Your task to perform on an android device: Is it going to rain tomorrow? Image 0: 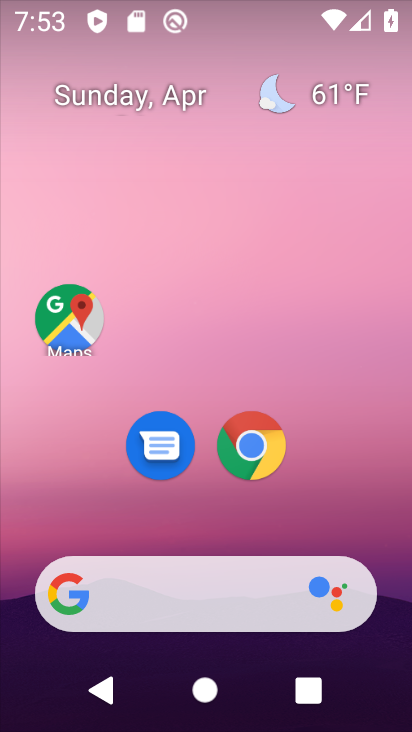
Step 0: drag from (203, 520) to (213, 41)
Your task to perform on an android device: Is it going to rain tomorrow? Image 1: 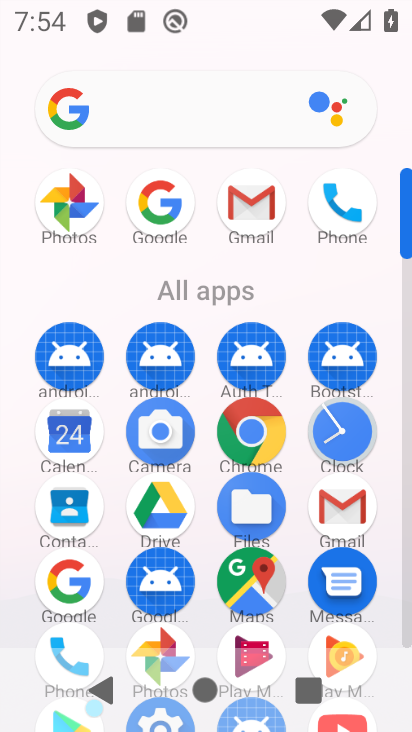
Step 1: click (168, 198)
Your task to perform on an android device: Is it going to rain tomorrow? Image 2: 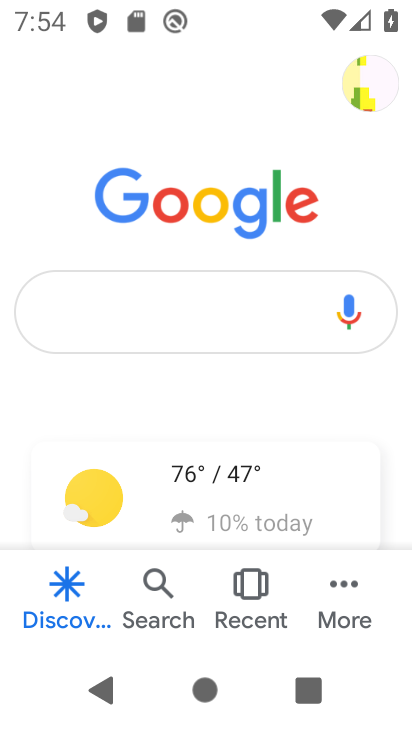
Step 2: click (227, 484)
Your task to perform on an android device: Is it going to rain tomorrow? Image 3: 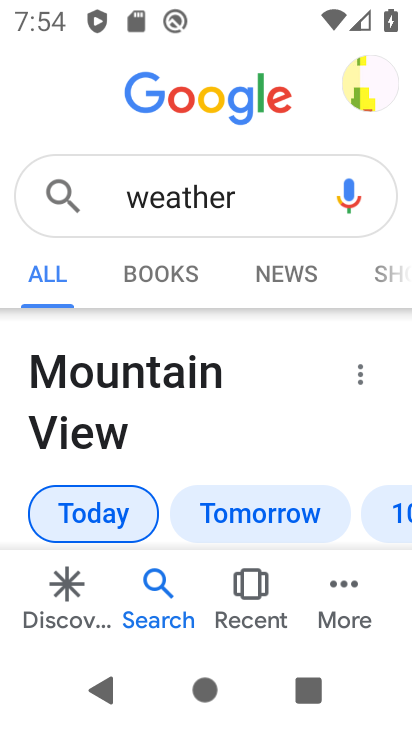
Step 3: drag from (207, 468) to (248, 241)
Your task to perform on an android device: Is it going to rain tomorrow? Image 4: 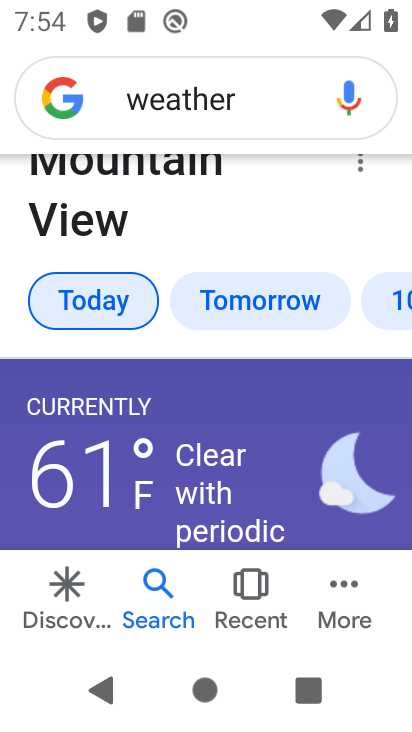
Step 4: click (251, 307)
Your task to perform on an android device: Is it going to rain tomorrow? Image 5: 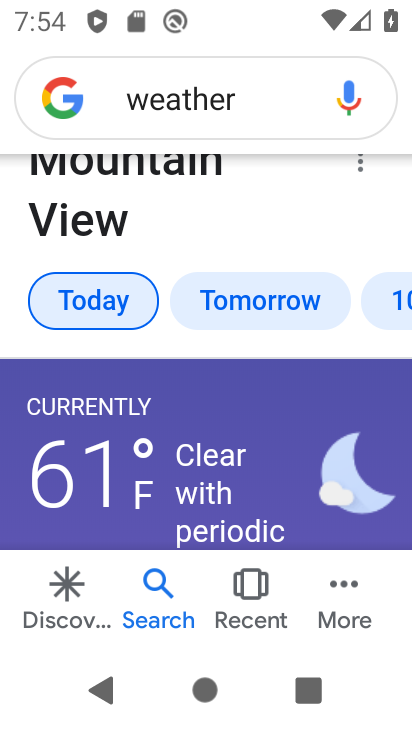
Step 5: click (246, 294)
Your task to perform on an android device: Is it going to rain tomorrow? Image 6: 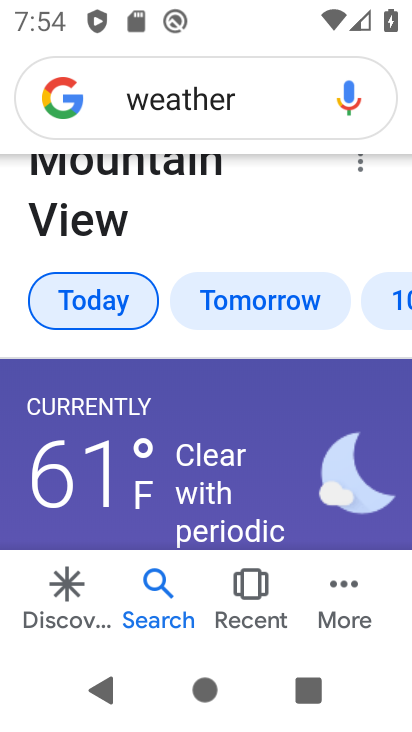
Step 6: click (246, 294)
Your task to perform on an android device: Is it going to rain tomorrow? Image 7: 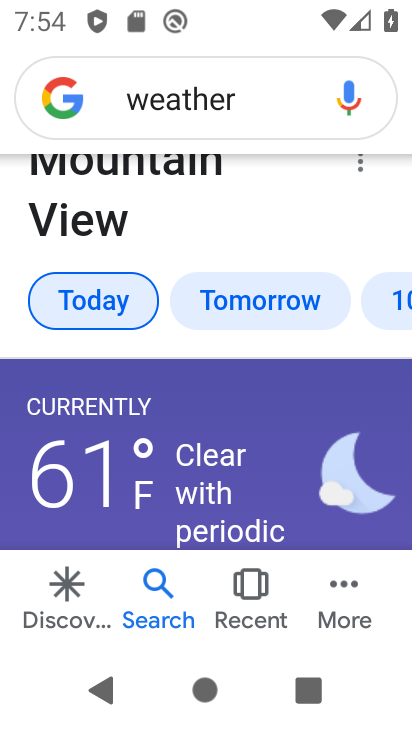
Step 7: click (230, 298)
Your task to perform on an android device: Is it going to rain tomorrow? Image 8: 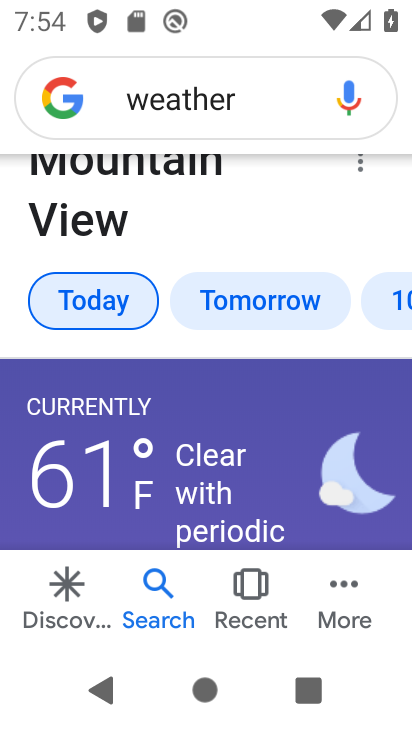
Step 8: click (228, 298)
Your task to perform on an android device: Is it going to rain tomorrow? Image 9: 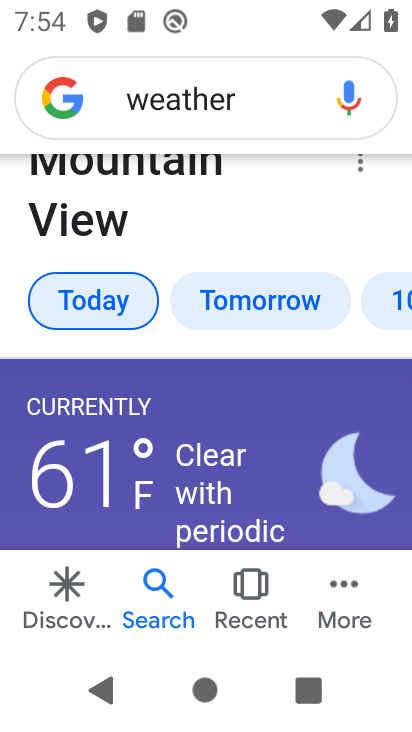
Step 9: click (228, 298)
Your task to perform on an android device: Is it going to rain tomorrow? Image 10: 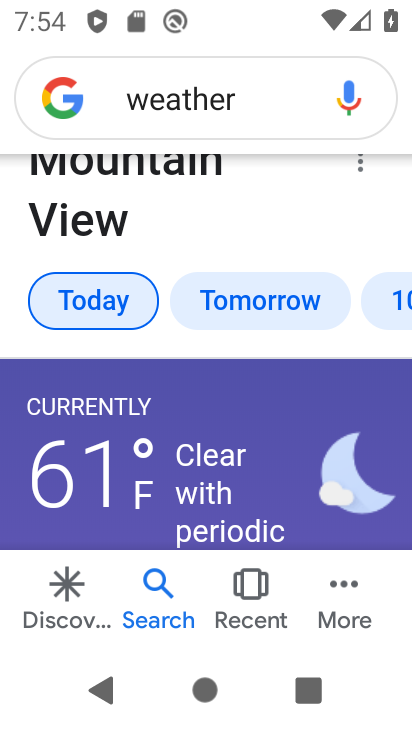
Step 10: click (228, 298)
Your task to perform on an android device: Is it going to rain tomorrow? Image 11: 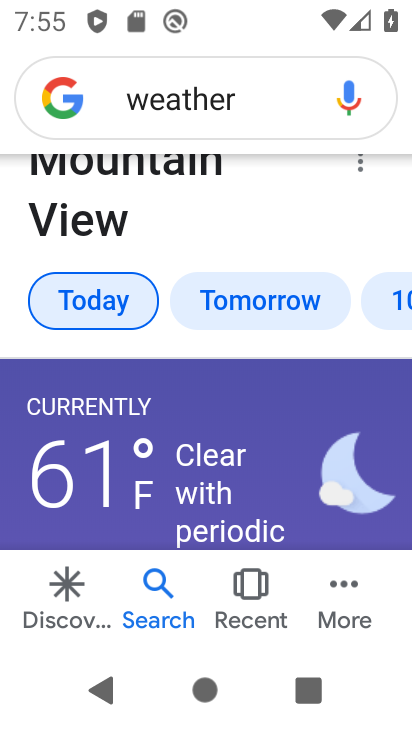
Step 11: click (259, 100)
Your task to perform on an android device: Is it going to rain tomorrow? Image 12: 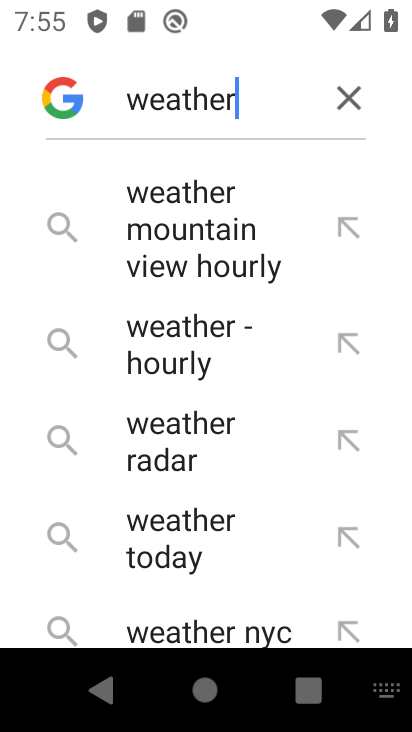
Step 12: drag from (259, 538) to (298, 223)
Your task to perform on an android device: Is it going to rain tomorrow? Image 13: 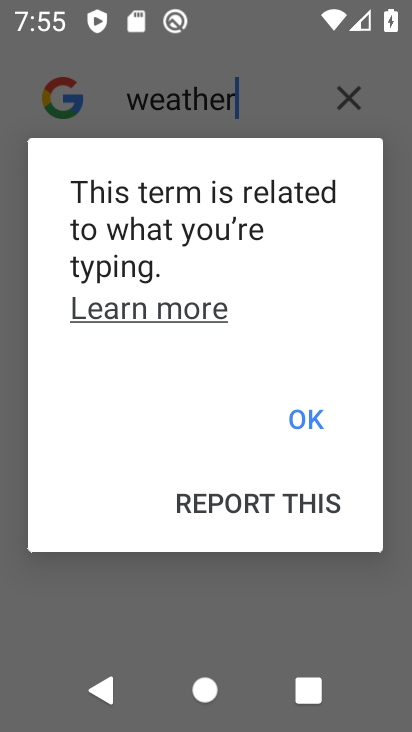
Step 13: click (302, 409)
Your task to perform on an android device: Is it going to rain tomorrow? Image 14: 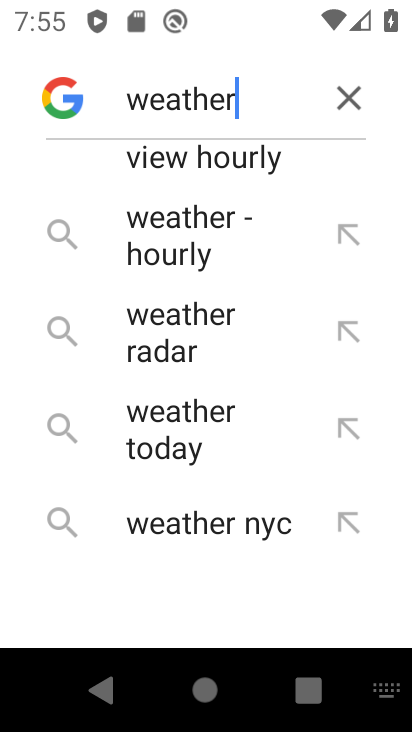
Step 14: type " tomorrow"
Your task to perform on an android device: Is it going to rain tomorrow? Image 15: 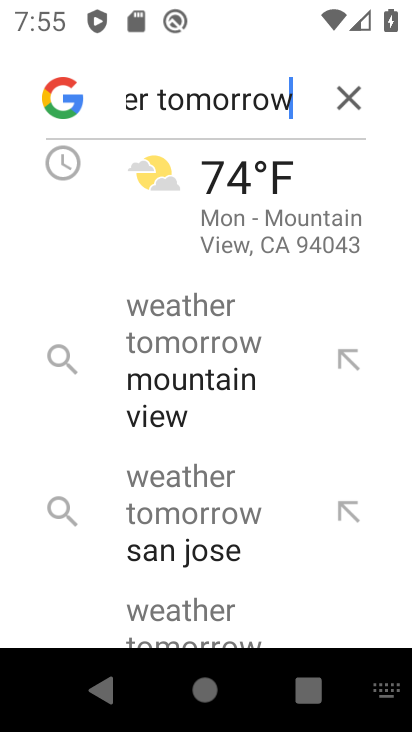
Step 15: click (221, 598)
Your task to perform on an android device: Is it going to rain tomorrow? Image 16: 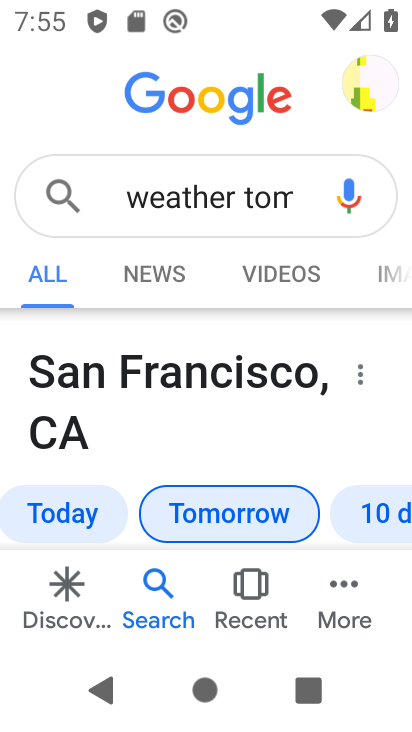
Step 16: task complete